Your task to perform on an android device: Open privacy settings Image 0: 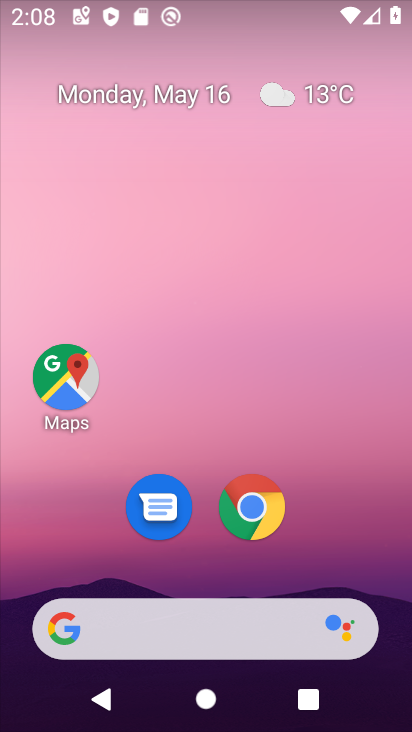
Step 0: drag from (371, 523) to (341, 112)
Your task to perform on an android device: Open privacy settings Image 1: 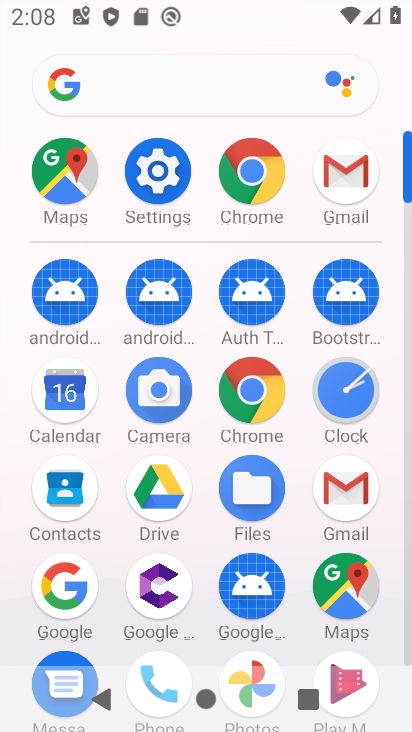
Step 1: click (160, 182)
Your task to perform on an android device: Open privacy settings Image 2: 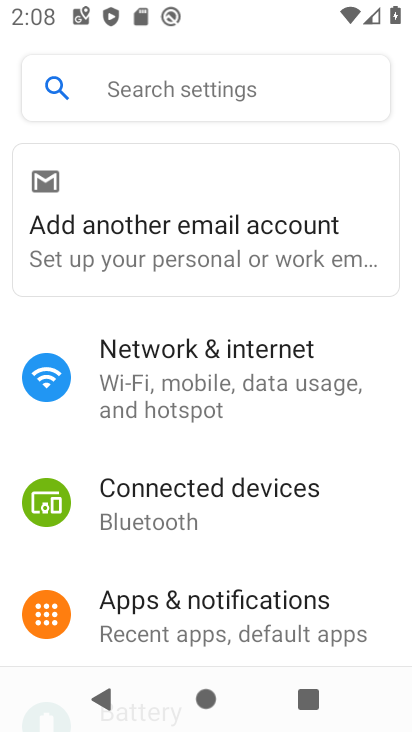
Step 2: drag from (372, 577) to (373, 340)
Your task to perform on an android device: Open privacy settings Image 3: 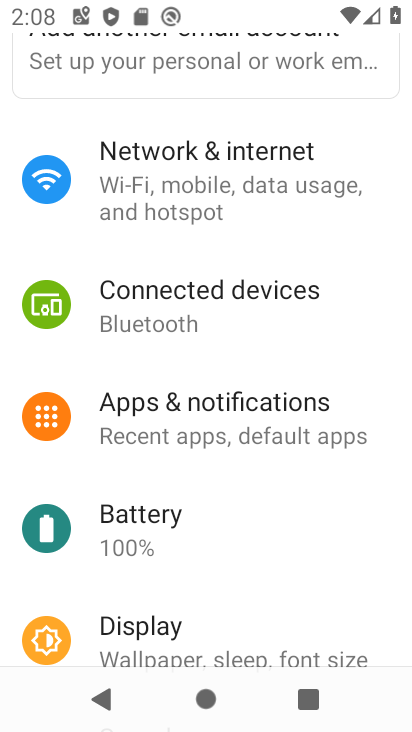
Step 3: drag from (349, 561) to (361, 350)
Your task to perform on an android device: Open privacy settings Image 4: 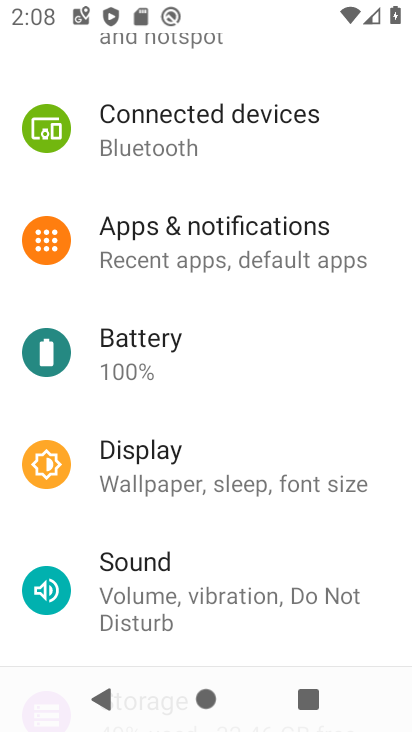
Step 4: drag from (338, 554) to (335, 371)
Your task to perform on an android device: Open privacy settings Image 5: 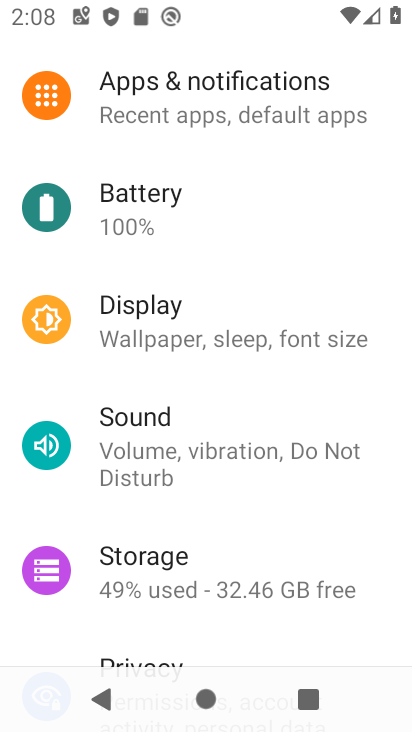
Step 5: drag from (321, 633) to (329, 449)
Your task to perform on an android device: Open privacy settings Image 6: 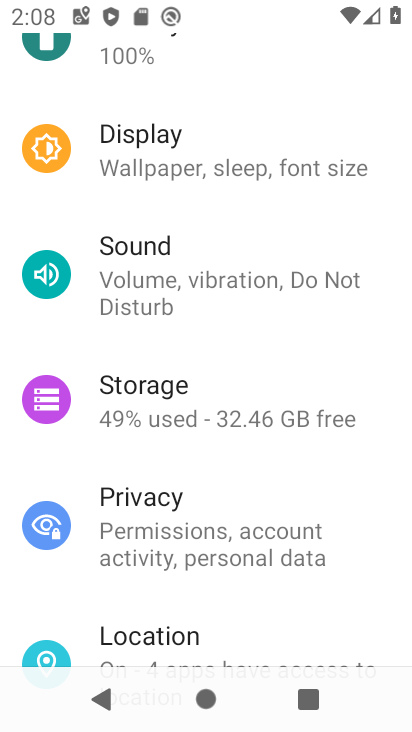
Step 6: drag from (337, 629) to (349, 385)
Your task to perform on an android device: Open privacy settings Image 7: 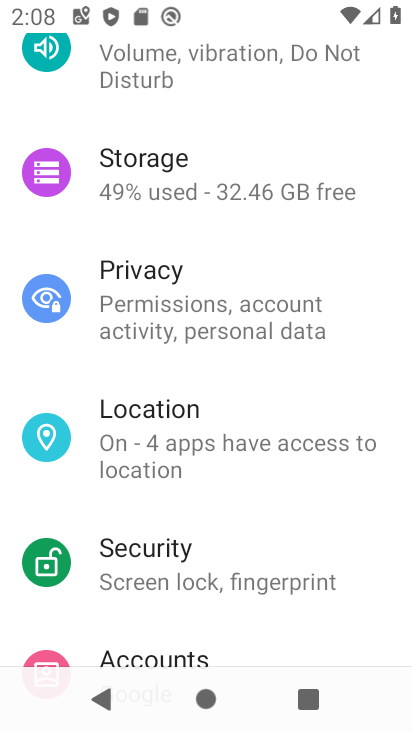
Step 7: drag from (346, 634) to (346, 440)
Your task to perform on an android device: Open privacy settings Image 8: 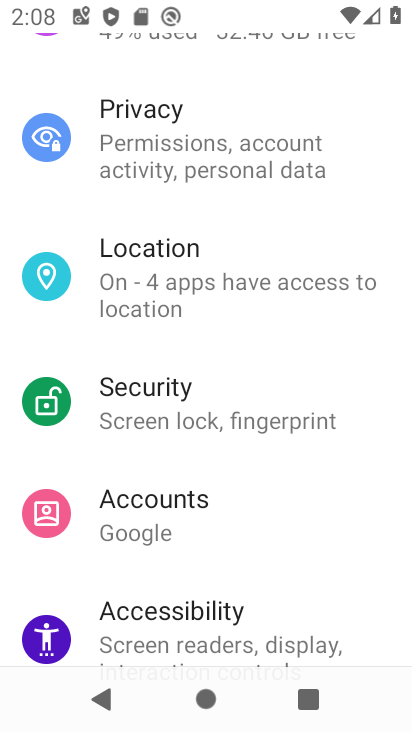
Step 8: drag from (329, 604) to (328, 506)
Your task to perform on an android device: Open privacy settings Image 9: 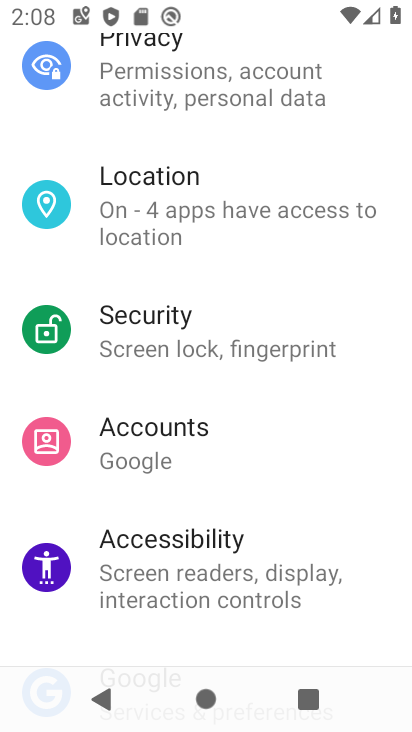
Step 9: drag from (359, 382) to (359, 536)
Your task to perform on an android device: Open privacy settings Image 10: 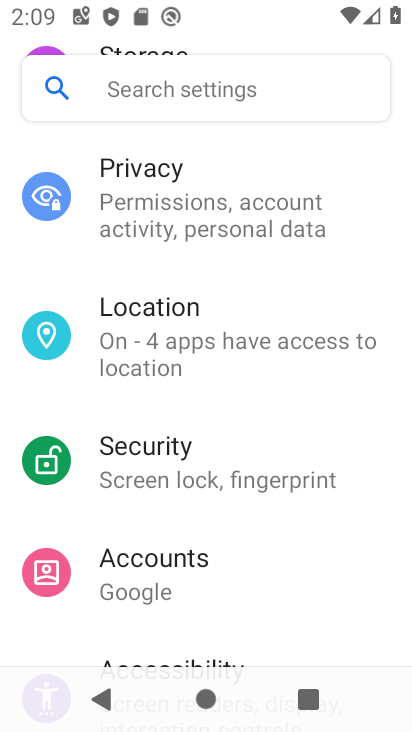
Step 10: click (240, 216)
Your task to perform on an android device: Open privacy settings Image 11: 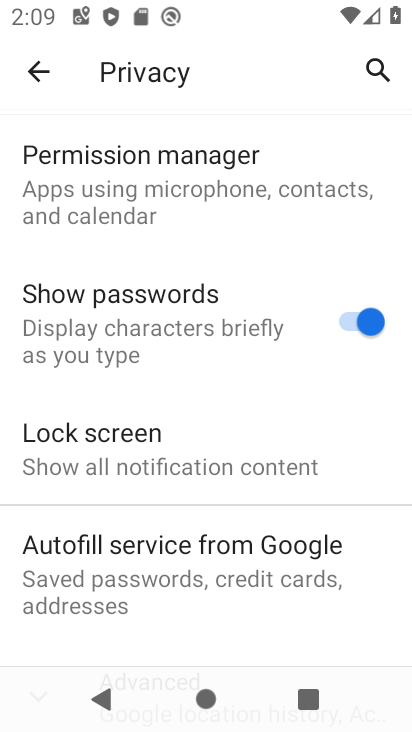
Step 11: task complete